Your task to perform on an android device: open app "Facebook" Image 0: 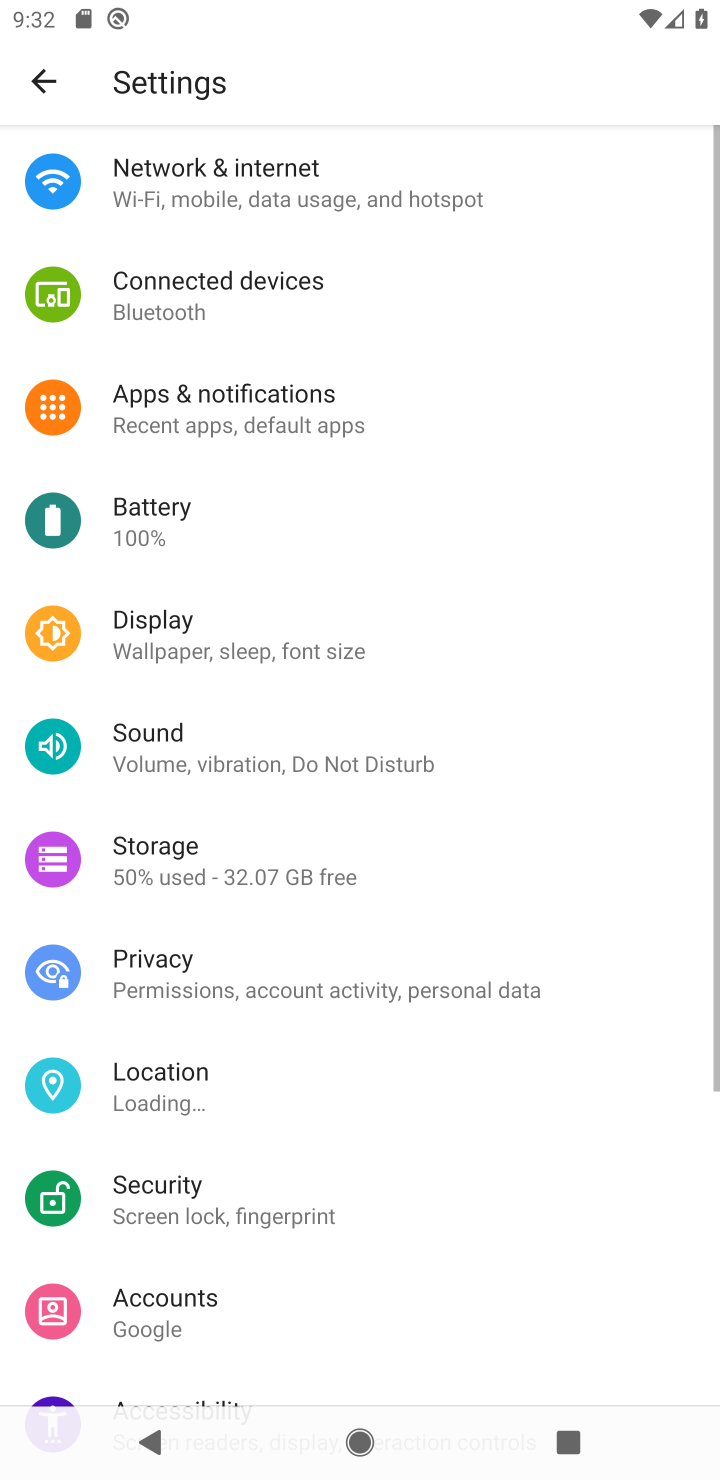
Step 0: press home button
Your task to perform on an android device: open app "Facebook" Image 1: 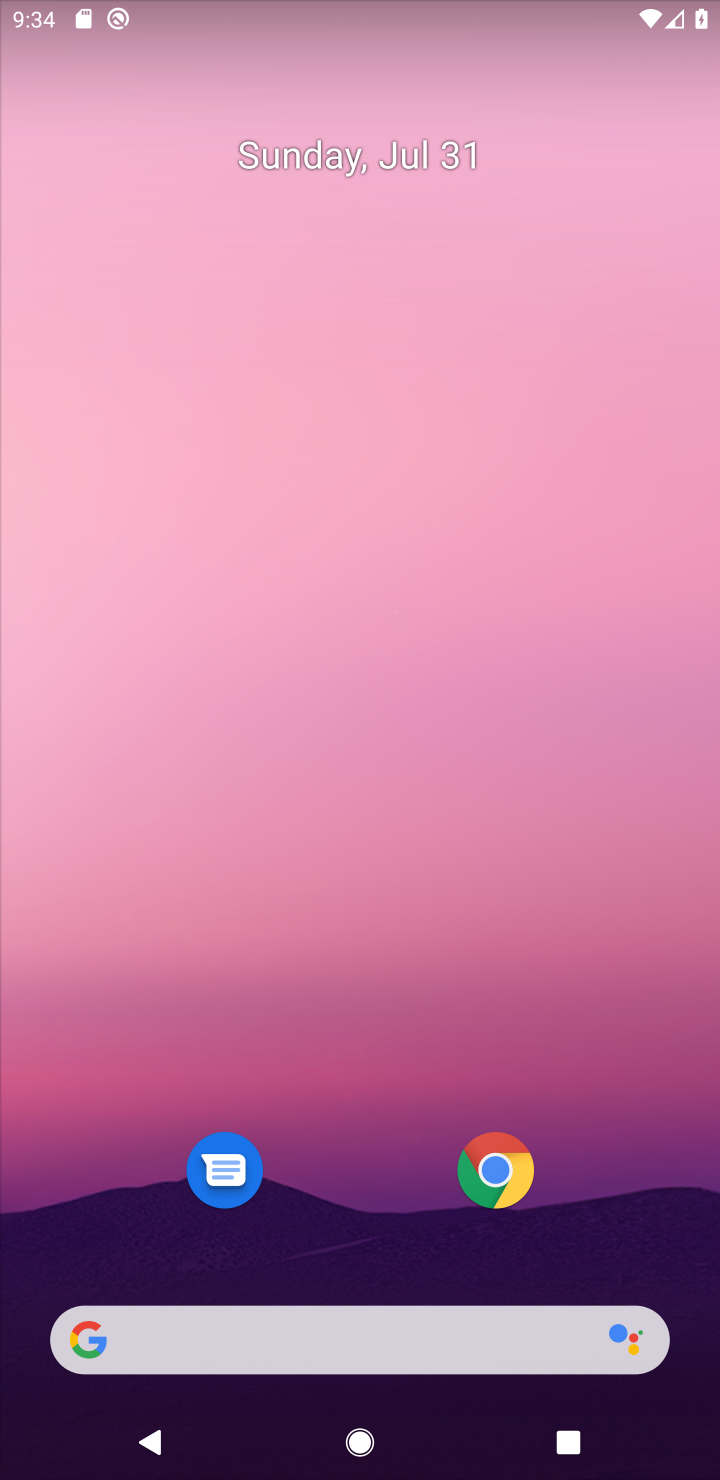
Step 1: drag from (564, 931) to (231, 17)
Your task to perform on an android device: open app "Facebook" Image 2: 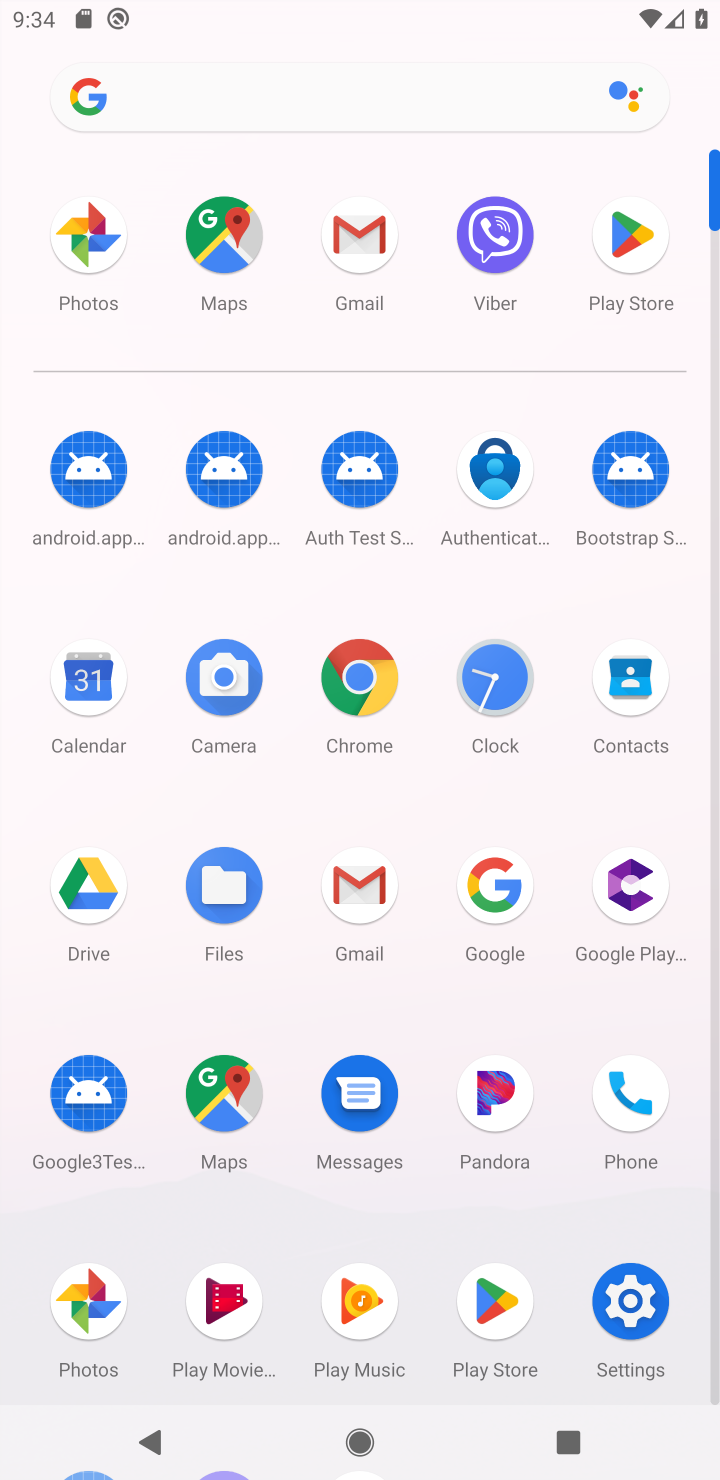
Step 2: click (616, 222)
Your task to perform on an android device: open app "Facebook" Image 3: 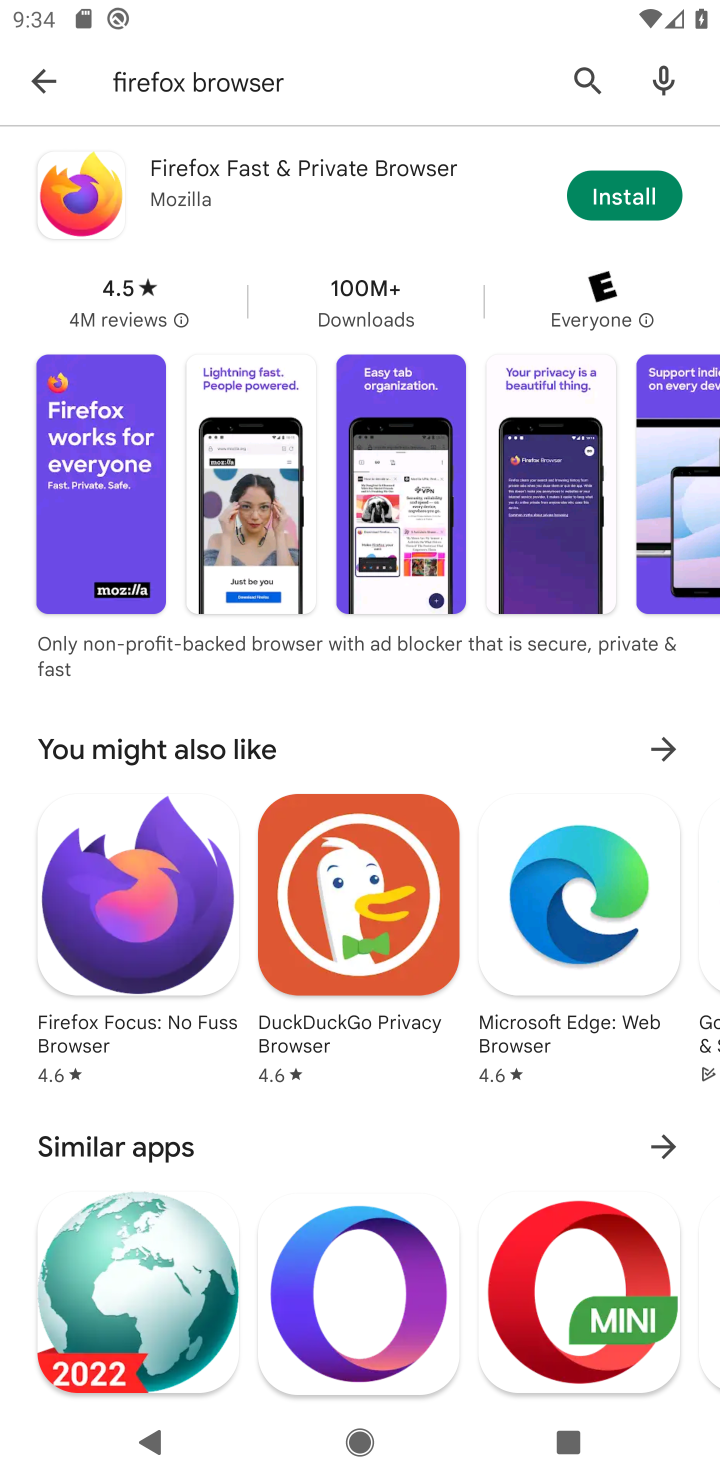
Step 3: press back button
Your task to perform on an android device: open app "Facebook" Image 4: 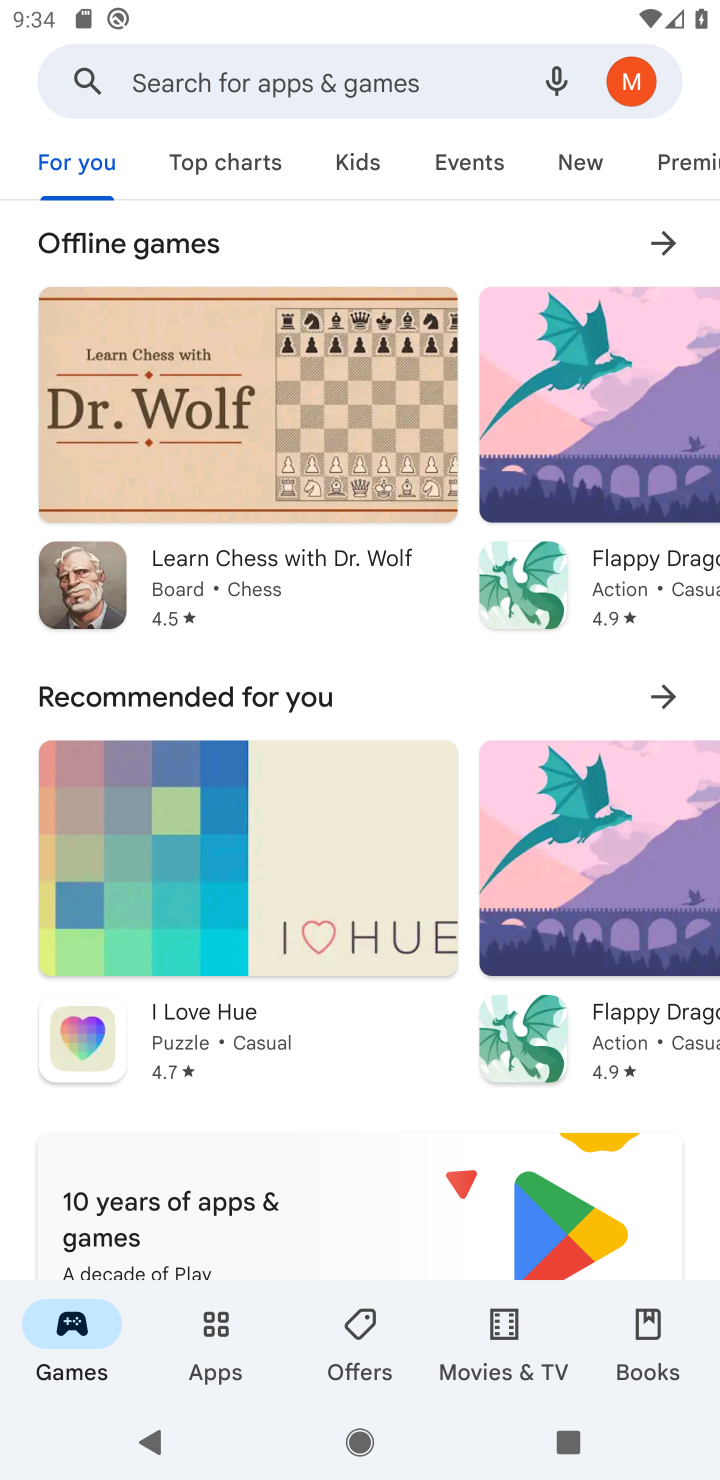
Step 4: click (174, 67)
Your task to perform on an android device: open app "Facebook" Image 5: 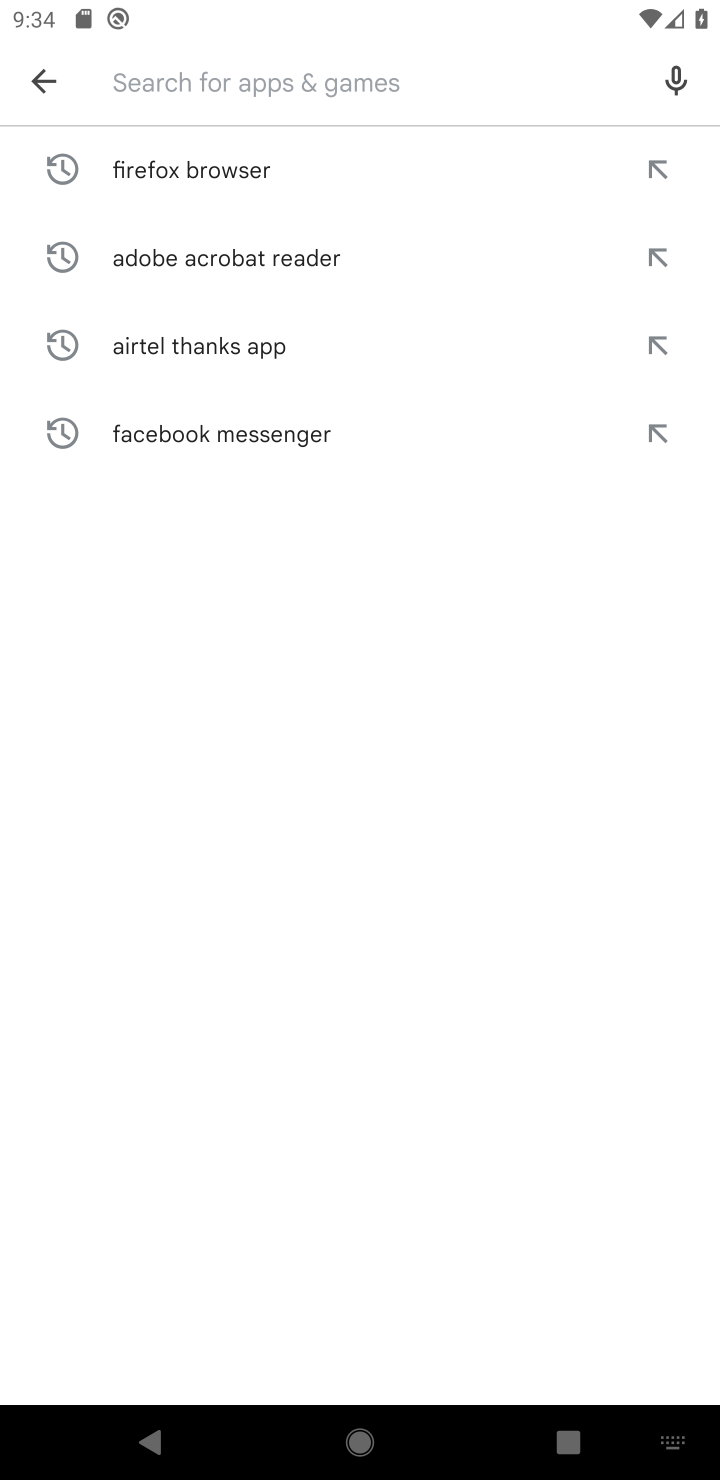
Step 5: type "Facebook"
Your task to perform on an android device: open app "Facebook" Image 6: 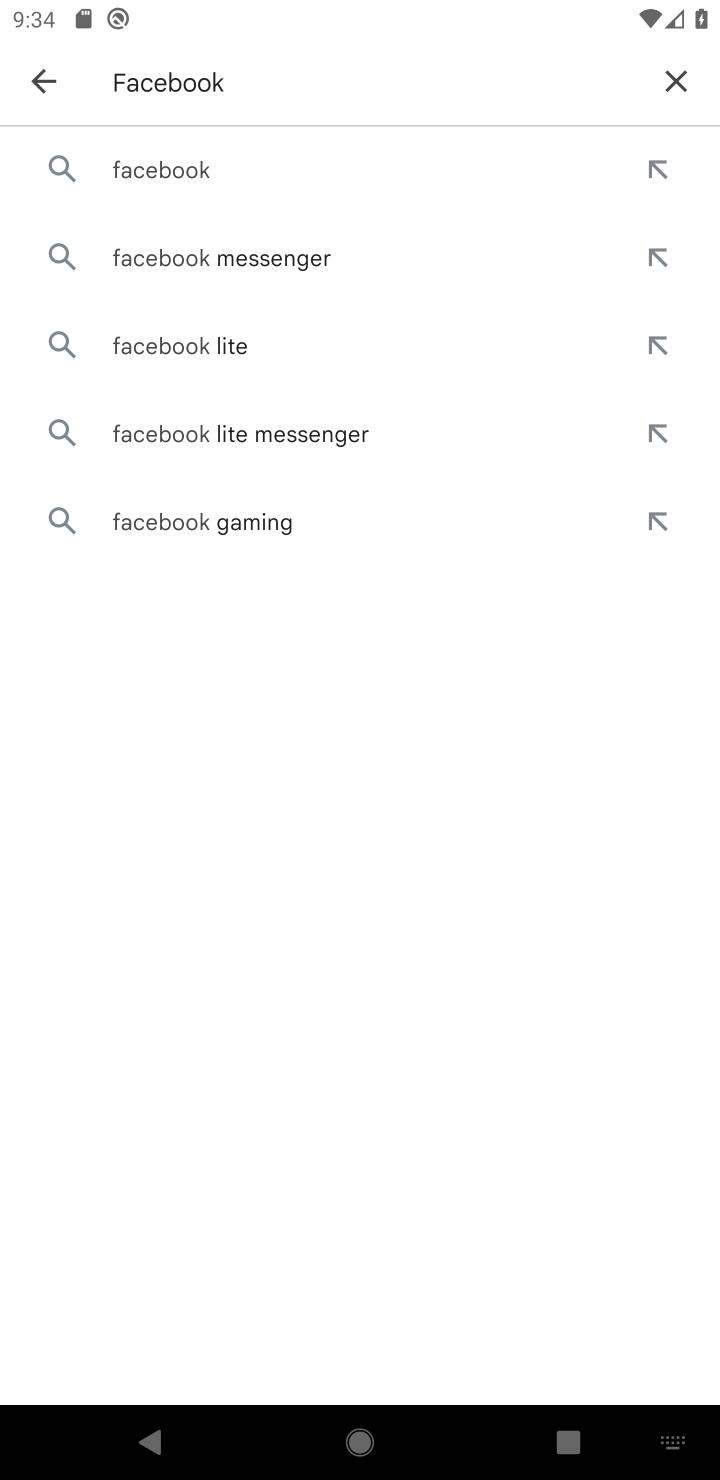
Step 6: click (132, 168)
Your task to perform on an android device: open app "Facebook" Image 7: 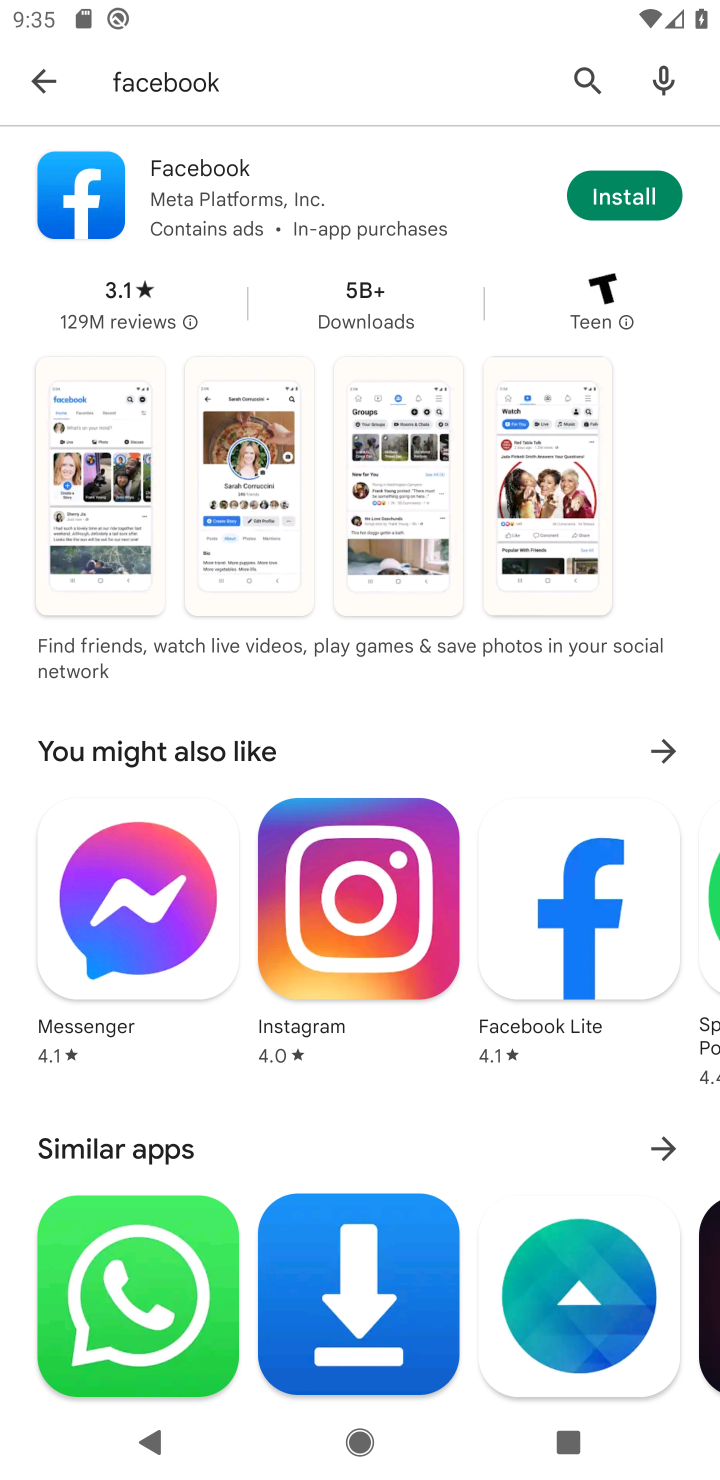
Step 7: task complete